Your task to perform on an android device: Open Google Chrome Image 0: 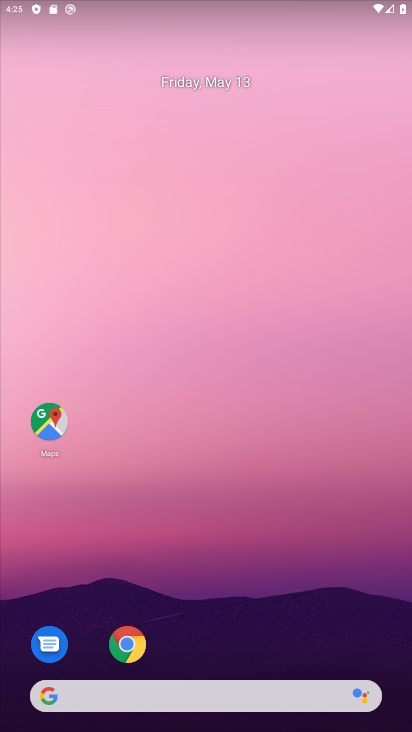
Step 0: click (135, 648)
Your task to perform on an android device: Open Google Chrome Image 1: 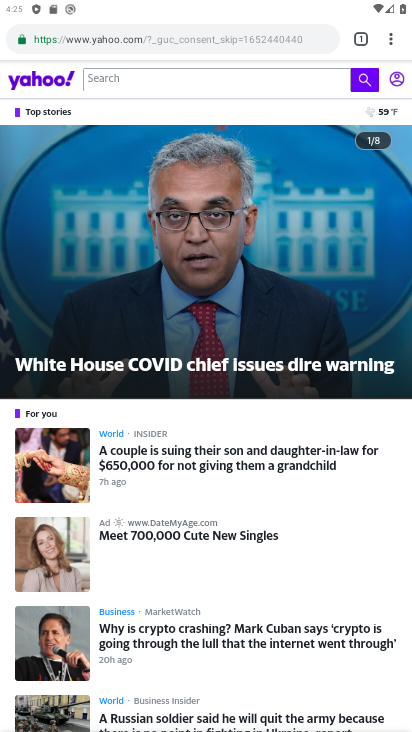
Step 1: task complete